Your task to perform on an android device: What is the news today? Image 0: 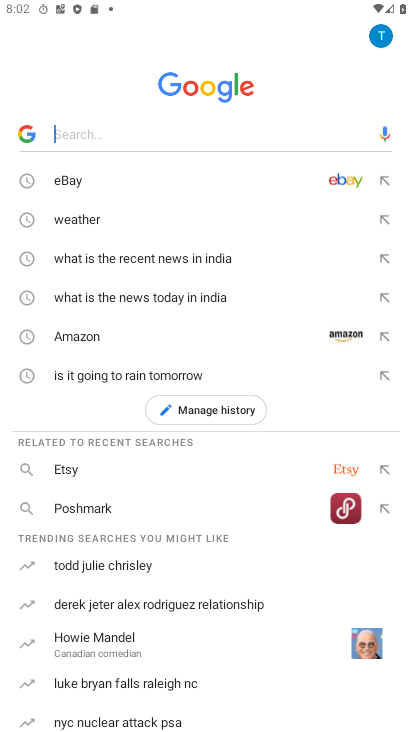
Step 0: press home button
Your task to perform on an android device: What is the news today? Image 1: 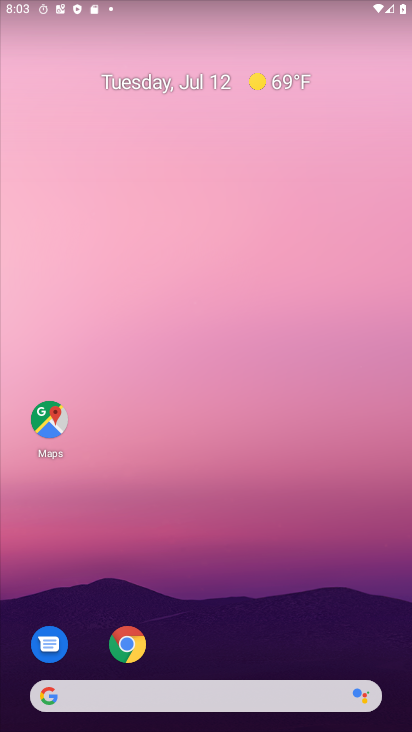
Step 1: task complete